Your task to perform on an android device: Go to Reddit.com Image 0: 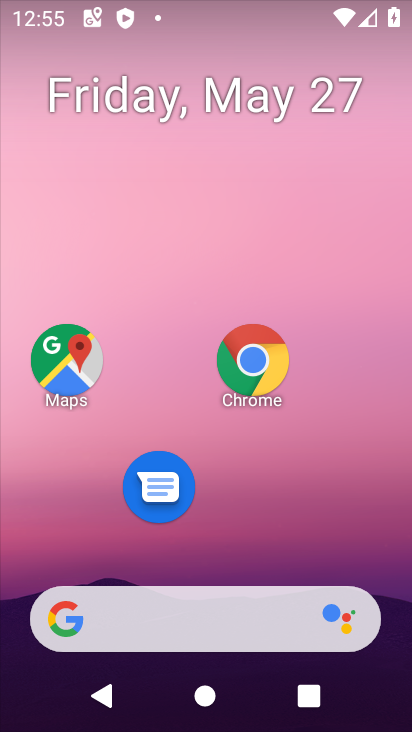
Step 0: drag from (263, 503) to (279, 107)
Your task to perform on an android device: Go to Reddit.com Image 1: 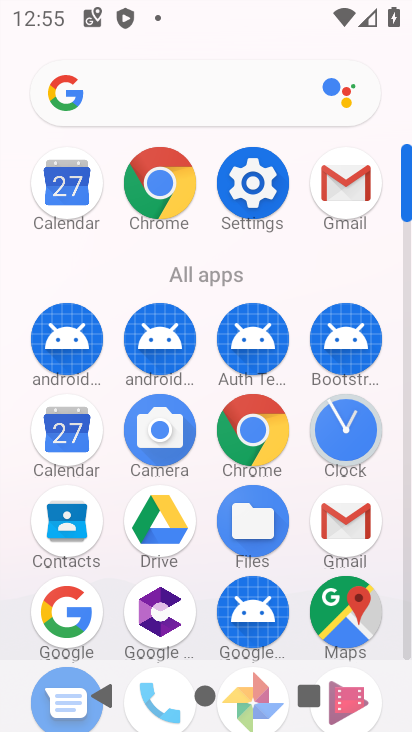
Step 1: click (63, 620)
Your task to perform on an android device: Go to Reddit.com Image 2: 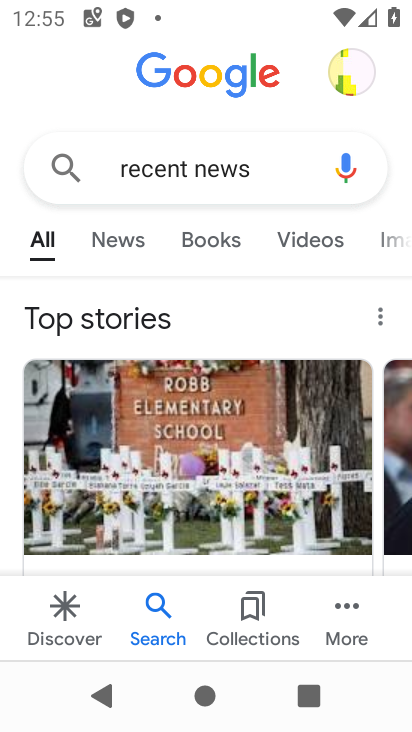
Step 2: click (254, 173)
Your task to perform on an android device: Go to Reddit.com Image 3: 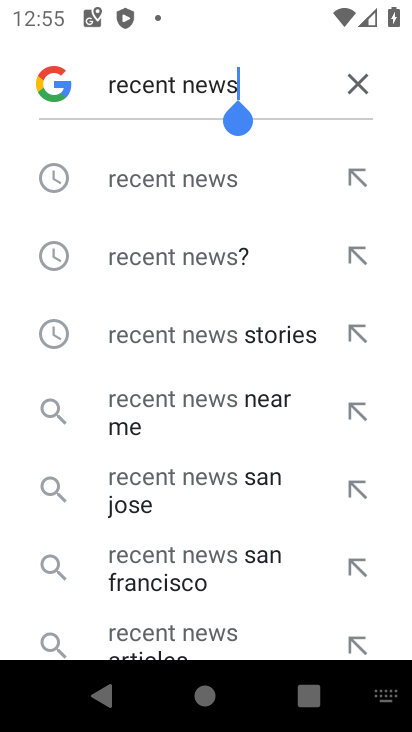
Step 3: click (351, 86)
Your task to perform on an android device: Go to Reddit.com Image 4: 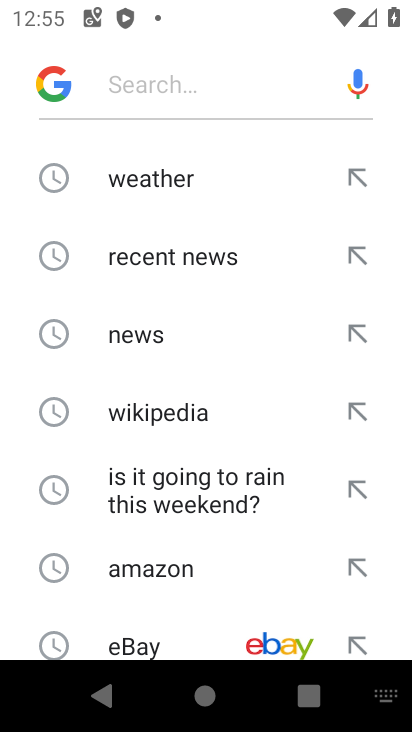
Step 4: drag from (156, 530) to (205, 149)
Your task to perform on an android device: Go to Reddit.com Image 5: 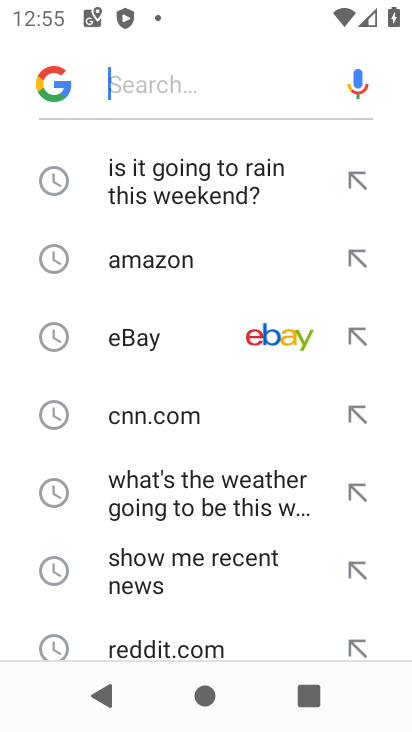
Step 5: drag from (214, 604) to (229, 407)
Your task to perform on an android device: Go to Reddit.com Image 6: 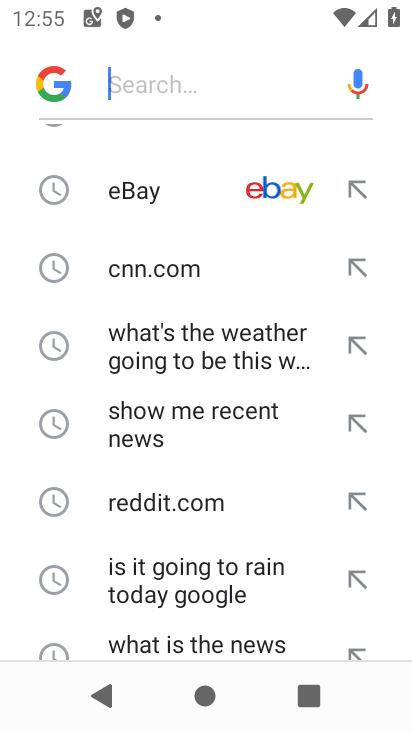
Step 6: click (158, 518)
Your task to perform on an android device: Go to Reddit.com Image 7: 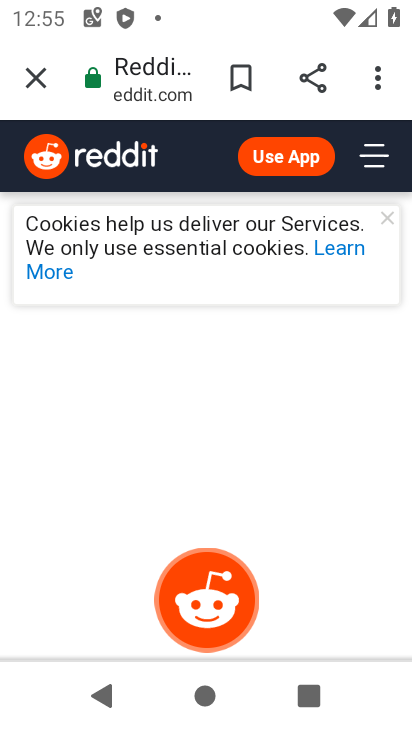
Step 7: task complete